Your task to perform on an android device: snooze an email in the gmail app Image 0: 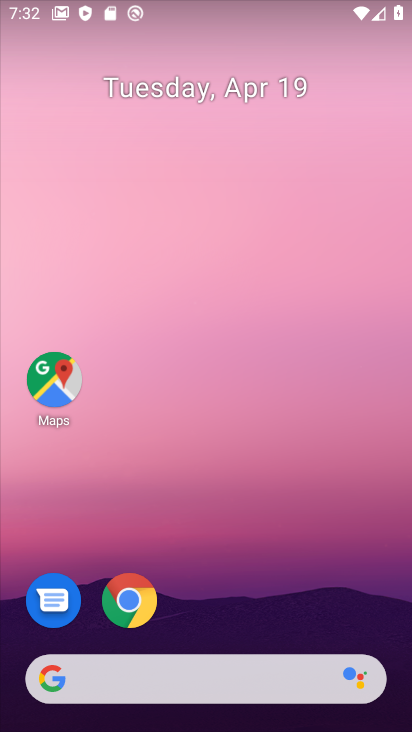
Step 0: drag from (225, 630) to (304, 128)
Your task to perform on an android device: snooze an email in the gmail app Image 1: 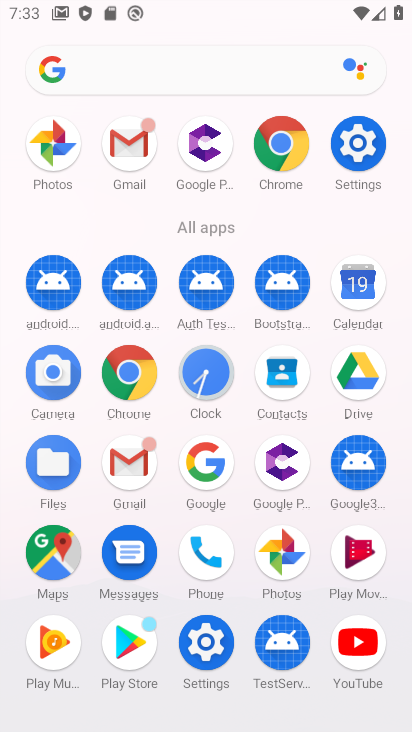
Step 1: click (136, 470)
Your task to perform on an android device: snooze an email in the gmail app Image 2: 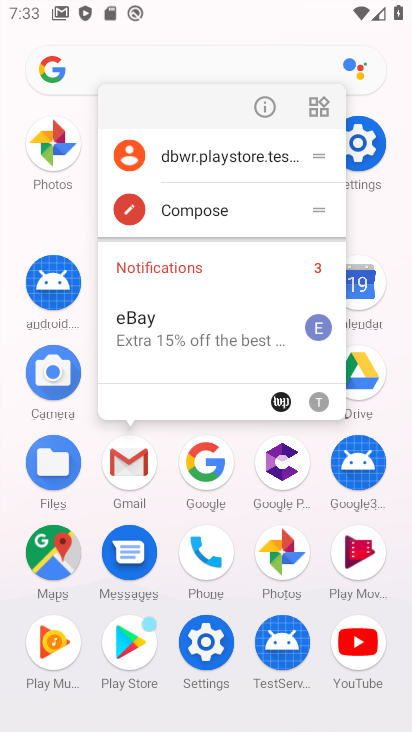
Step 2: click (134, 466)
Your task to perform on an android device: snooze an email in the gmail app Image 3: 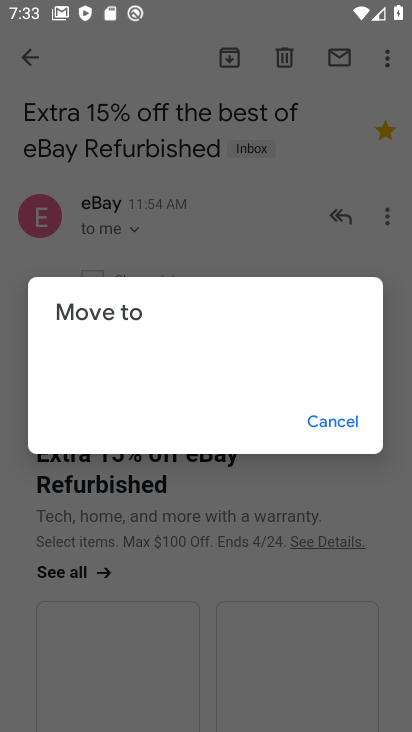
Step 3: click (314, 426)
Your task to perform on an android device: snooze an email in the gmail app Image 4: 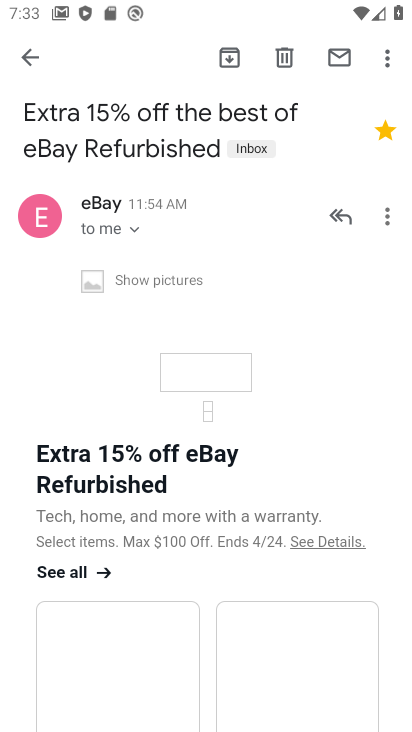
Step 4: click (388, 57)
Your task to perform on an android device: snooze an email in the gmail app Image 5: 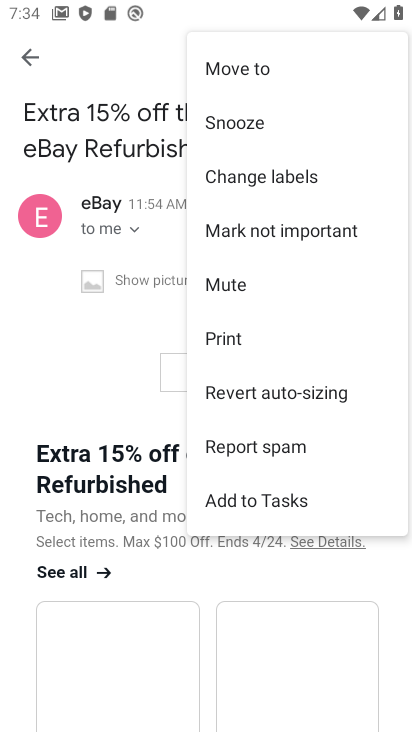
Step 5: click (314, 128)
Your task to perform on an android device: snooze an email in the gmail app Image 6: 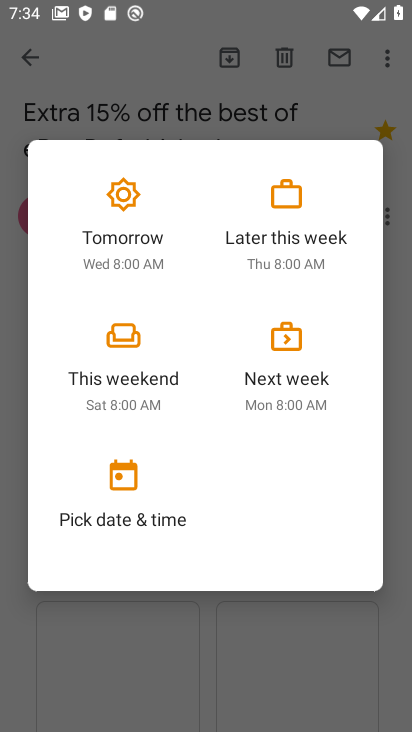
Step 6: click (274, 201)
Your task to perform on an android device: snooze an email in the gmail app Image 7: 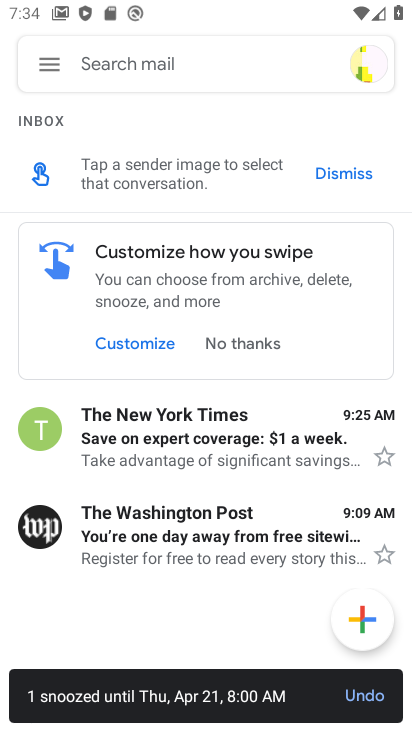
Step 7: task complete